Your task to perform on an android device: open app "Venmo" (install if not already installed) Image 0: 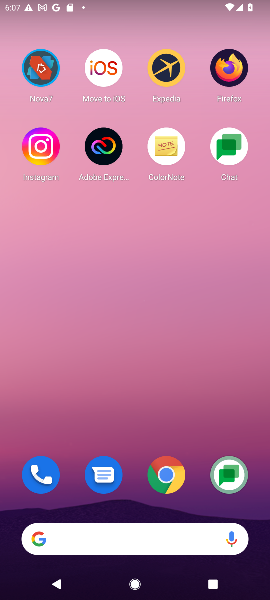
Step 0: drag from (112, 522) to (201, 191)
Your task to perform on an android device: open app "Venmo" (install if not already installed) Image 1: 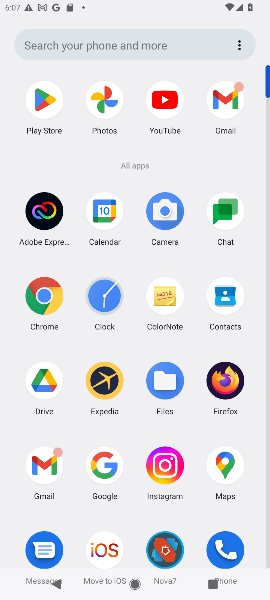
Step 1: click (43, 109)
Your task to perform on an android device: open app "Venmo" (install if not already installed) Image 2: 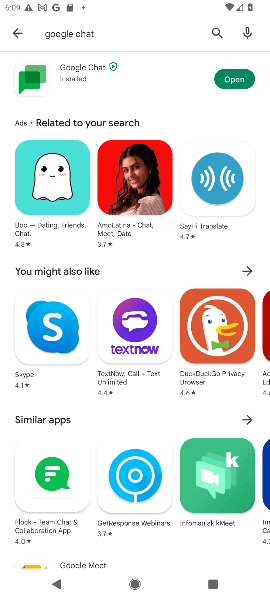
Step 2: click (228, 78)
Your task to perform on an android device: open app "Venmo" (install if not already installed) Image 3: 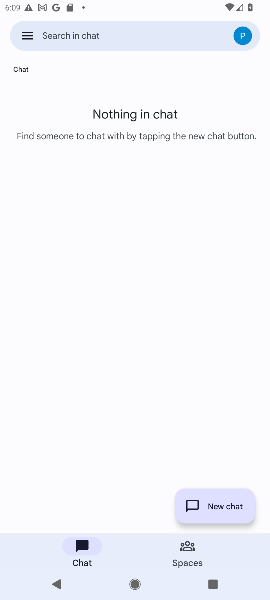
Step 3: task complete